Your task to perform on an android device: change your default location settings in chrome Image 0: 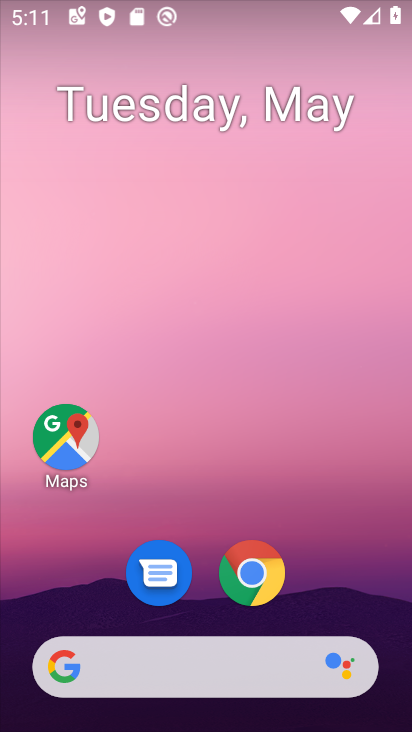
Step 0: click (257, 574)
Your task to perform on an android device: change your default location settings in chrome Image 1: 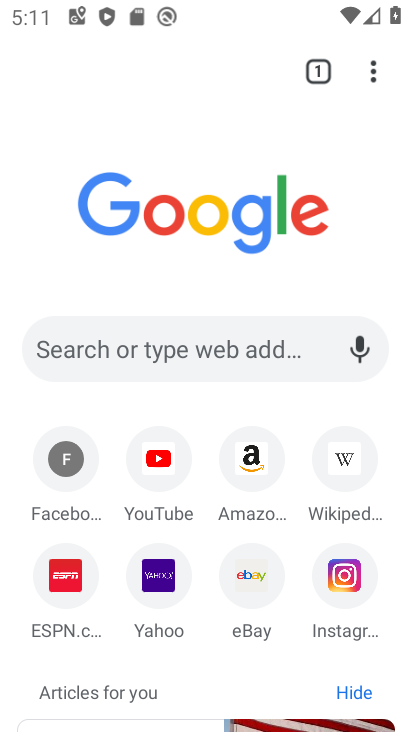
Step 1: drag from (369, 62) to (225, 607)
Your task to perform on an android device: change your default location settings in chrome Image 2: 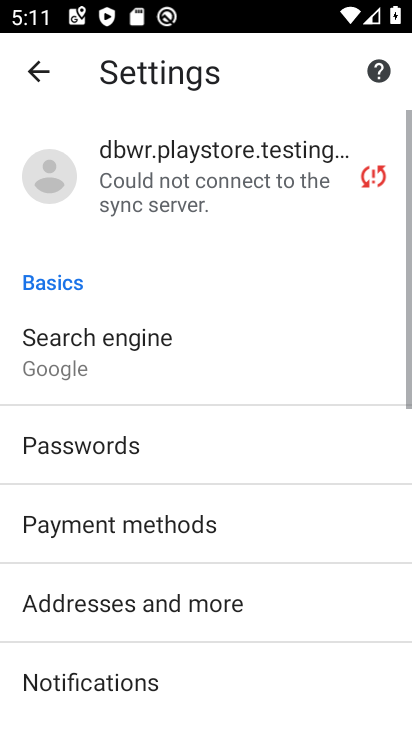
Step 2: drag from (149, 636) to (209, 155)
Your task to perform on an android device: change your default location settings in chrome Image 3: 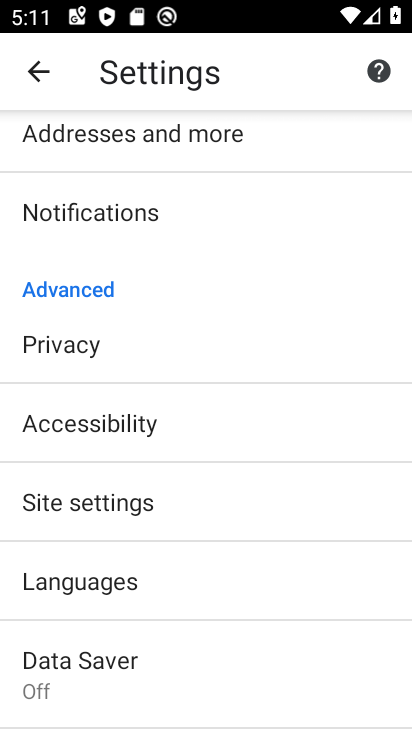
Step 3: click (139, 508)
Your task to perform on an android device: change your default location settings in chrome Image 4: 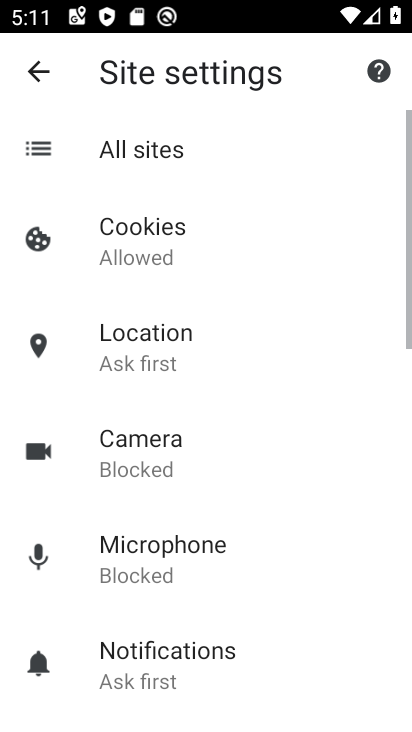
Step 4: drag from (161, 665) to (205, 730)
Your task to perform on an android device: change your default location settings in chrome Image 5: 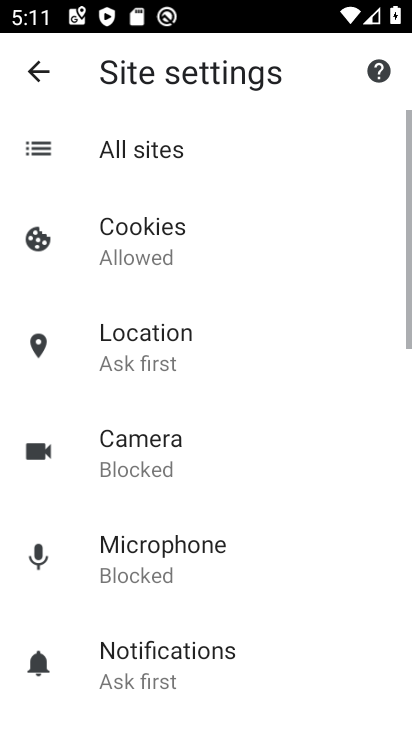
Step 5: click (164, 359)
Your task to perform on an android device: change your default location settings in chrome Image 6: 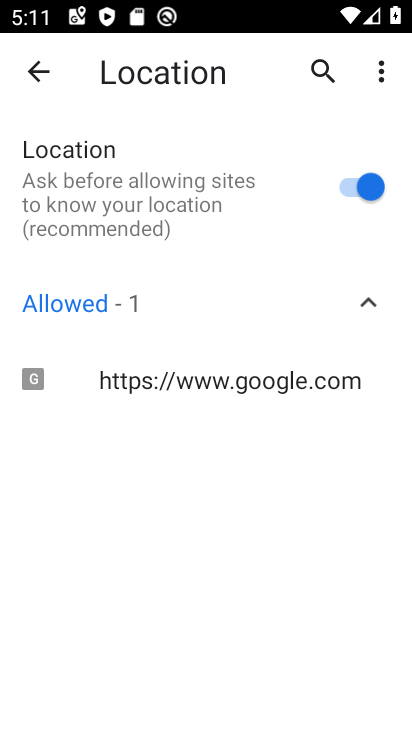
Step 6: click (366, 190)
Your task to perform on an android device: change your default location settings in chrome Image 7: 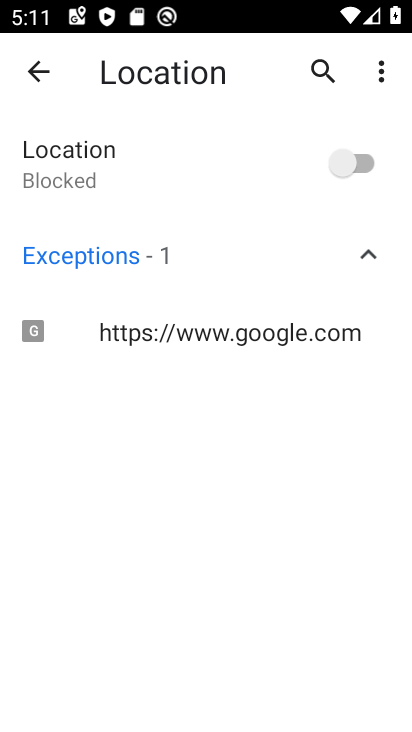
Step 7: task complete